Your task to perform on an android device: change the upload size in google photos Image 0: 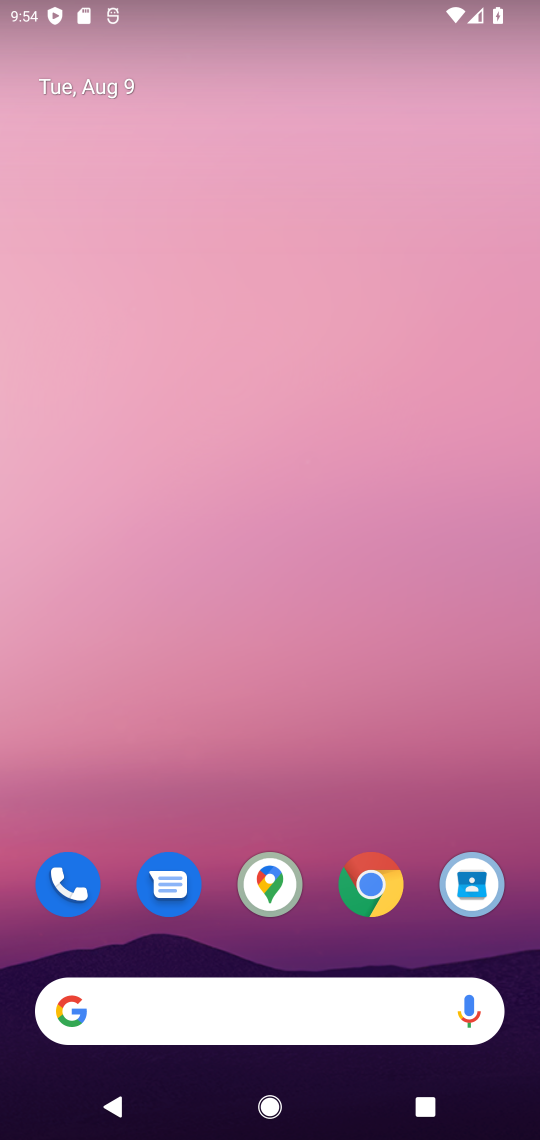
Step 0: drag from (253, 992) to (280, 157)
Your task to perform on an android device: change the upload size in google photos Image 1: 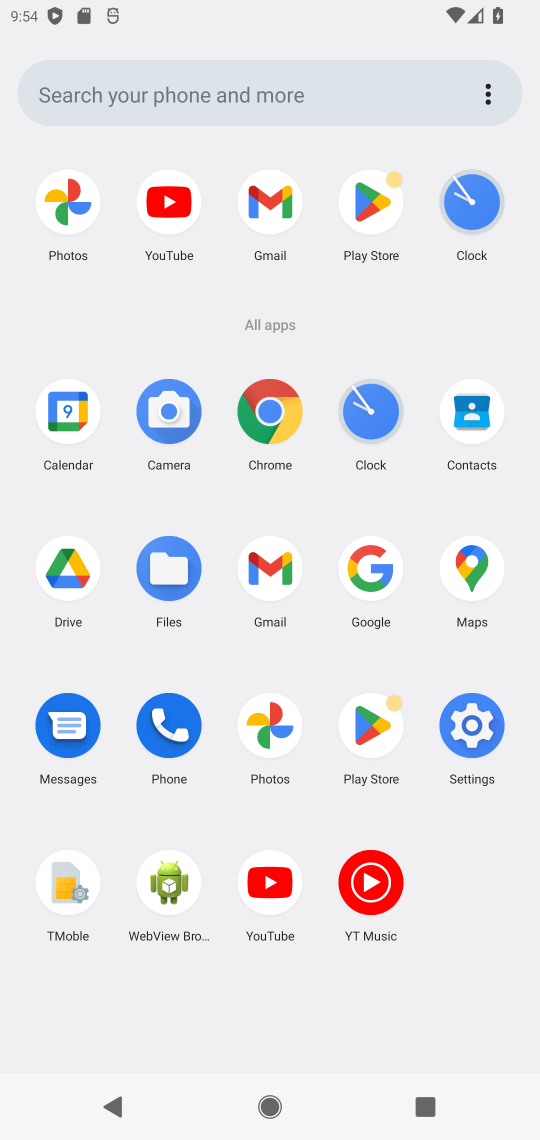
Step 1: drag from (213, 909) to (253, 116)
Your task to perform on an android device: change the upload size in google photos Image 2: 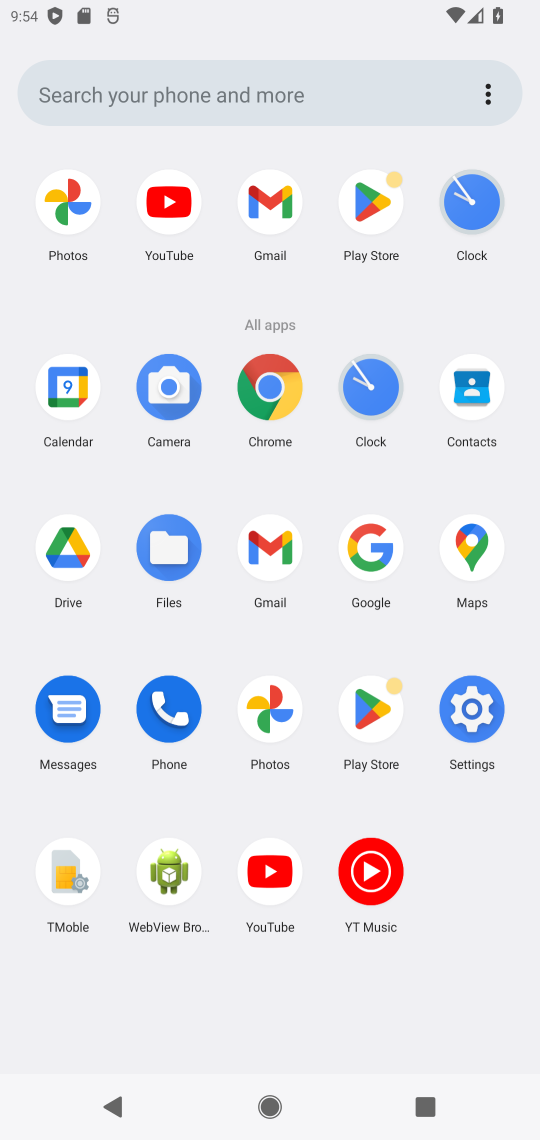
Step 2: drag from (253, 929) to (233, 81)
Your task to perform on an android device: change the upload size in google photos Image 3: 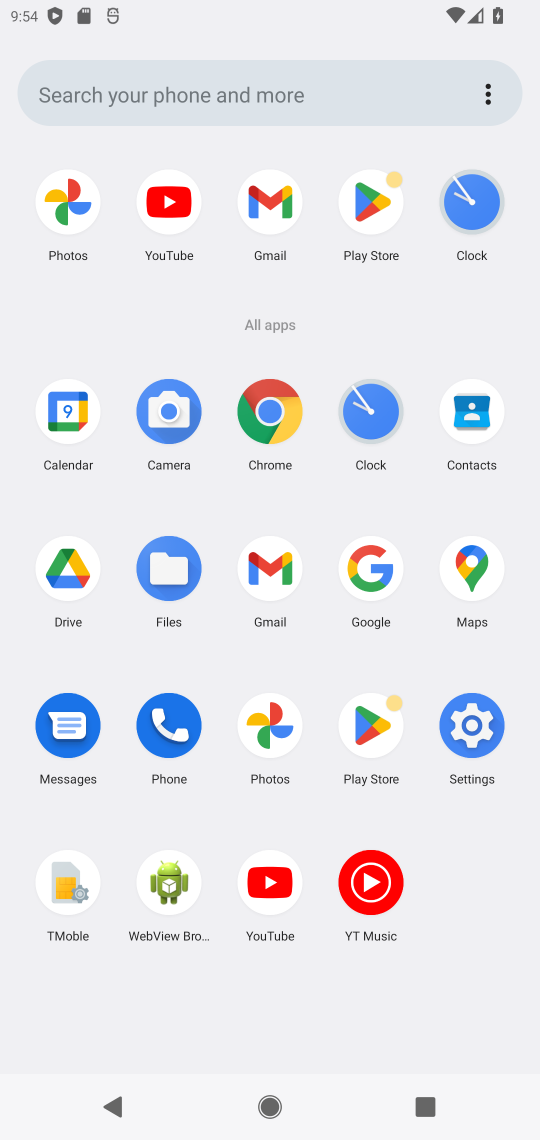
Step 3: click (276, 720)
Your task to perform on an android device: change the upload size in google photos Image 4: 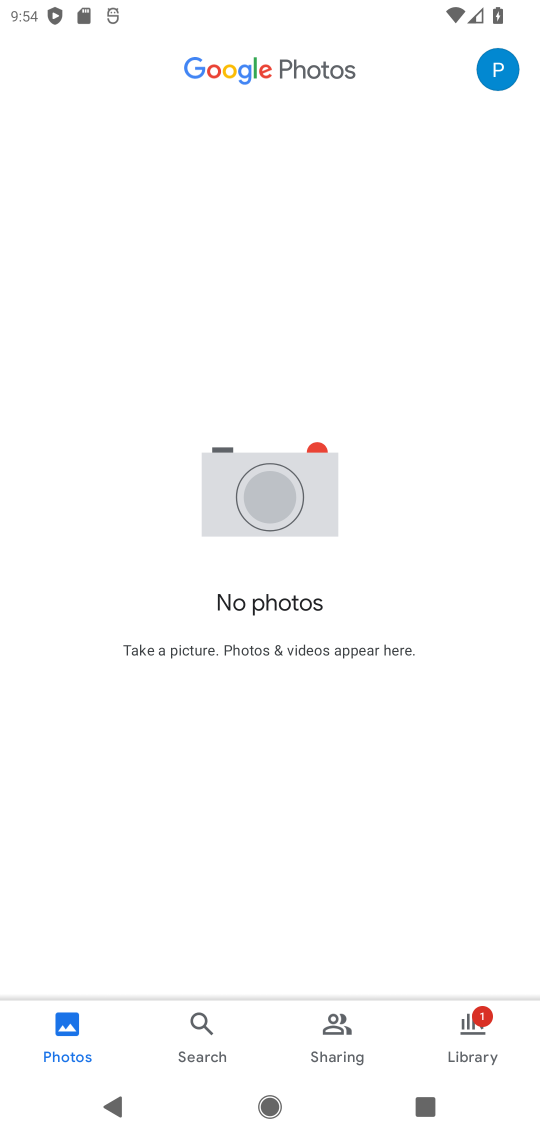
Step 4: click (494, 73)
Your task to perform on an android device: change the upload size in google photos Image 5: 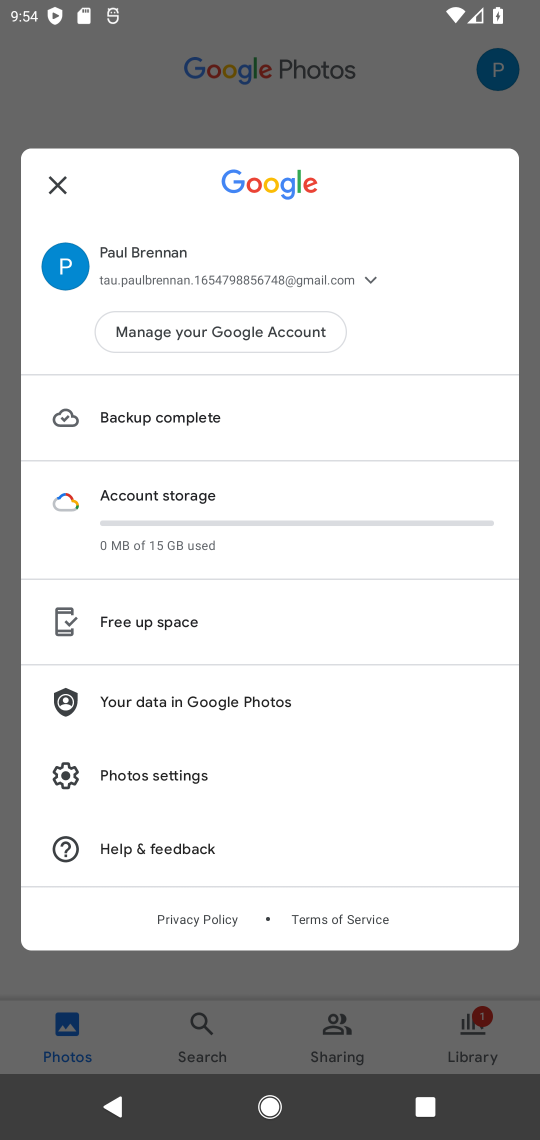
Step 5: click (154, 774)
Your task to perform on an android device: change the upload size in google photos Image 6: 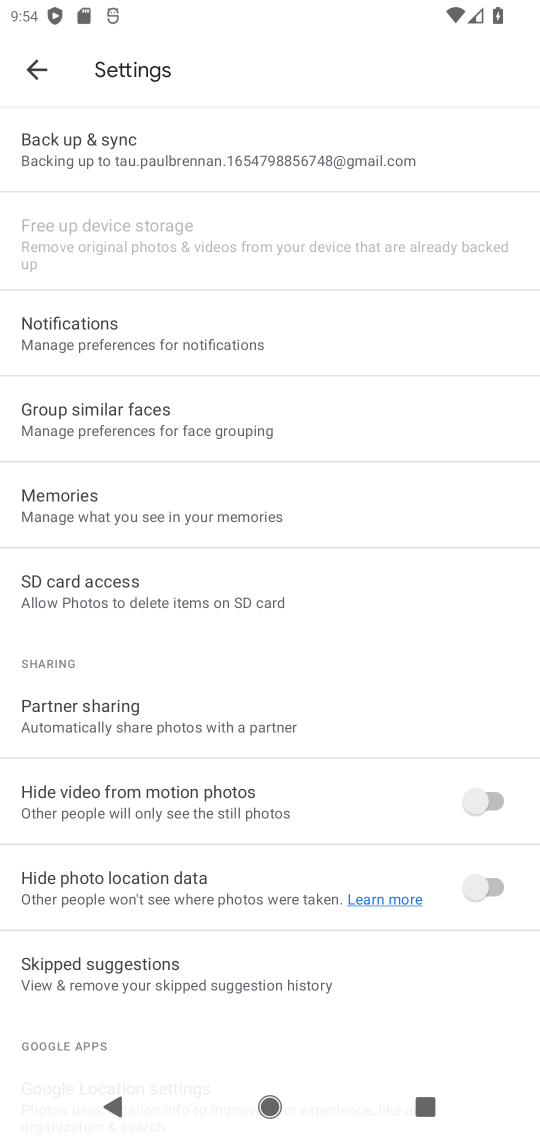
Step 6: click (326, 151)
Your task to perform on an android device: change the upload size in google photos Image 7: 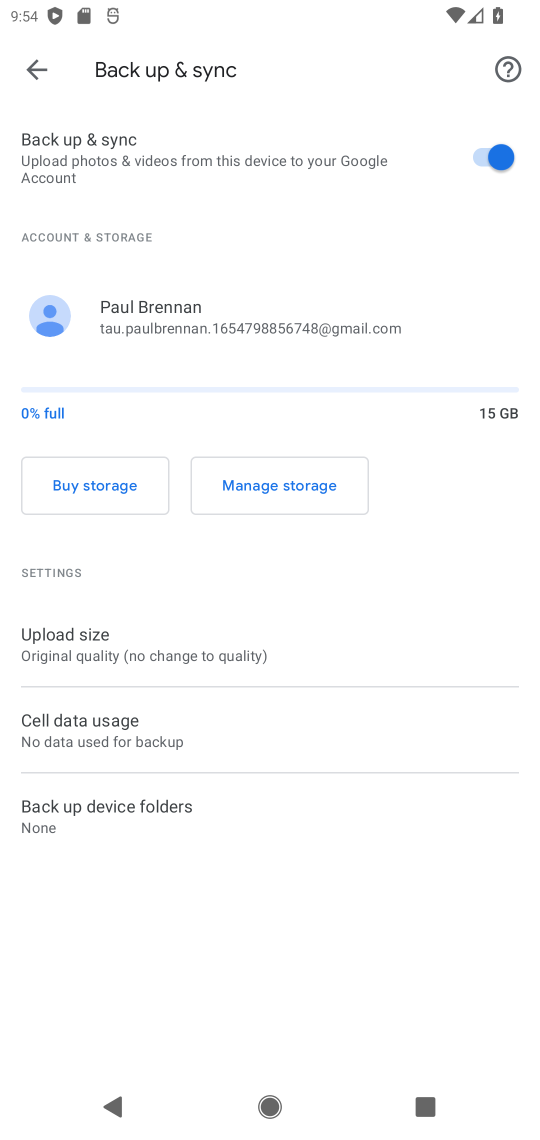
Step 7: click (174, 657)
Your task to perform on an android device: change the upload size in google photos Image 8: 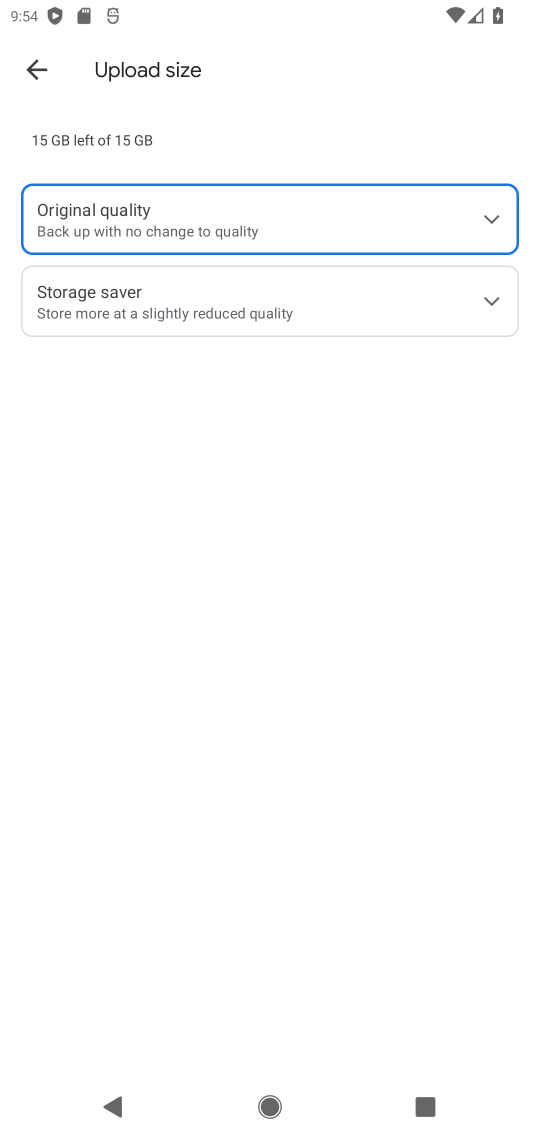
Step 8: click (270, 308)
Your task to perform on an android device: change the upload size in google photos Image 9: 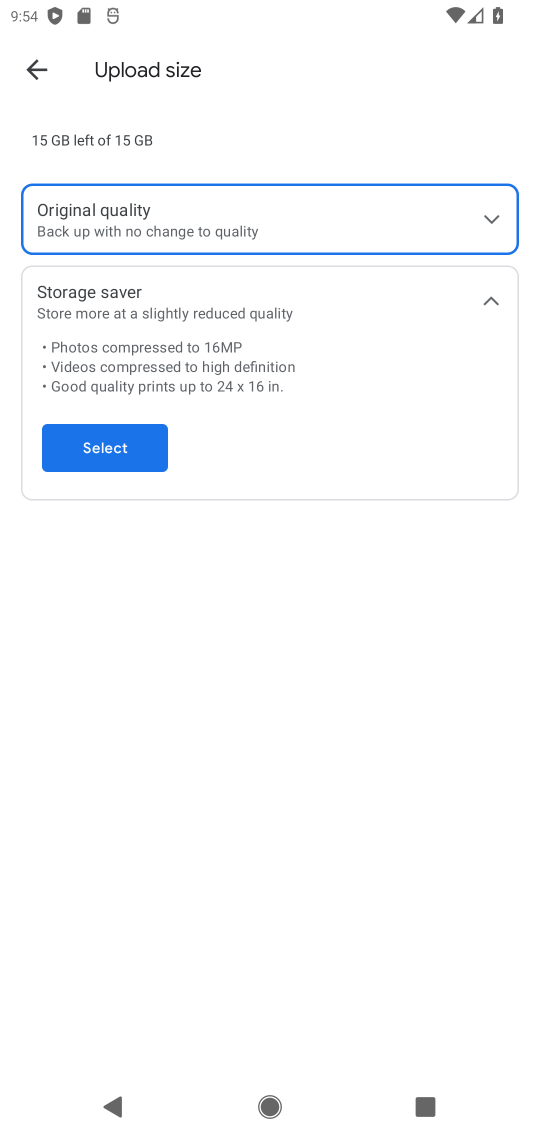
Step 9: click (94, 458)
Your task to perform on an android device: change the upload size in google photos Image 10: 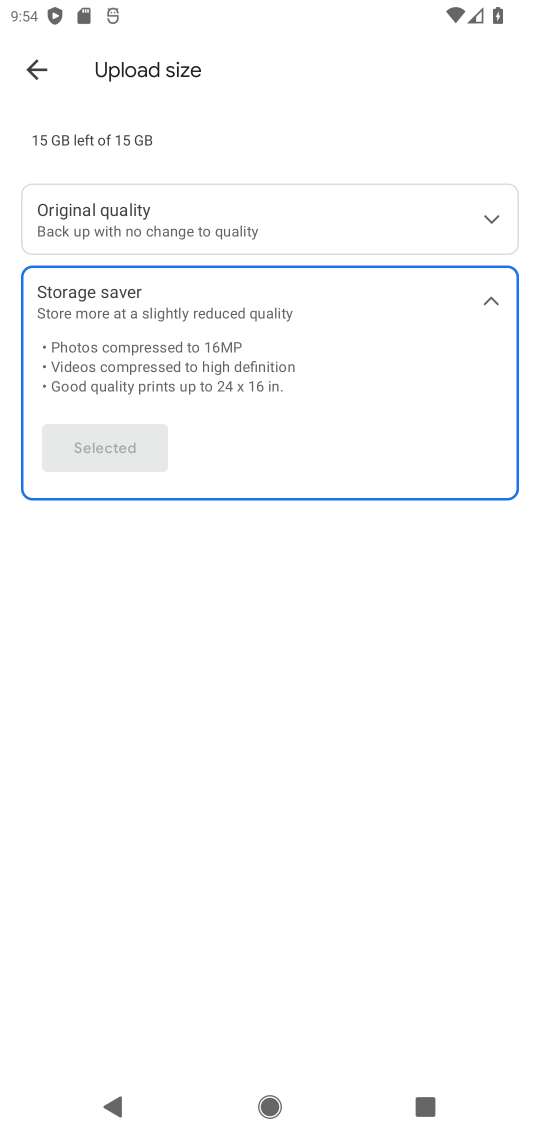
Step 10: task complete